Your task to perform on an android device: open device folders in google photos Image 0: 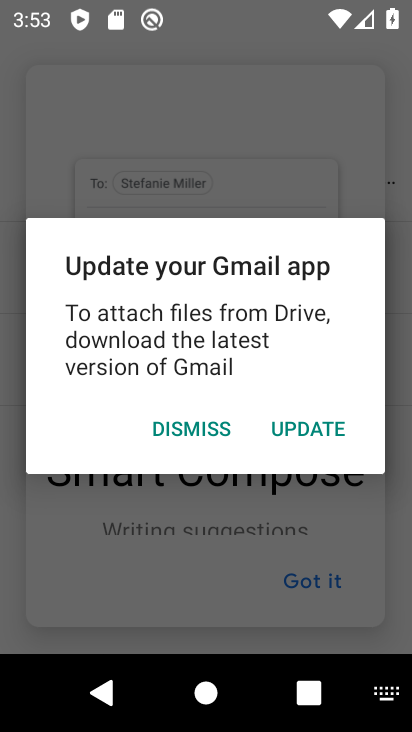
Step 0: press home button
Your task to perform on an android device: open device folders in google photos Image 1: 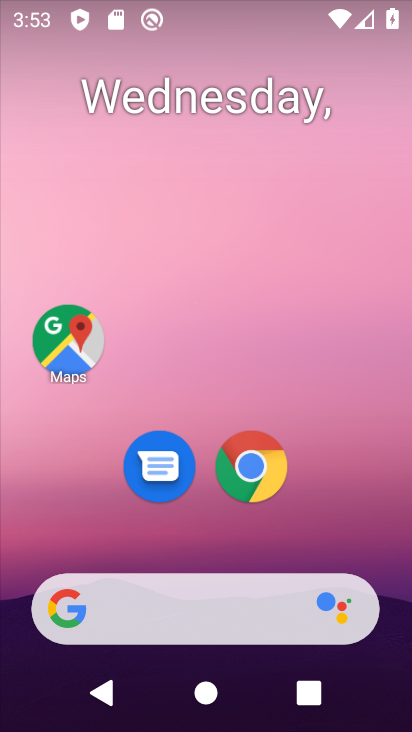
Step 1: drag from (175, 530) to (96, 0)
Your task to perform on an android device: open device folders in google photos Image 2: 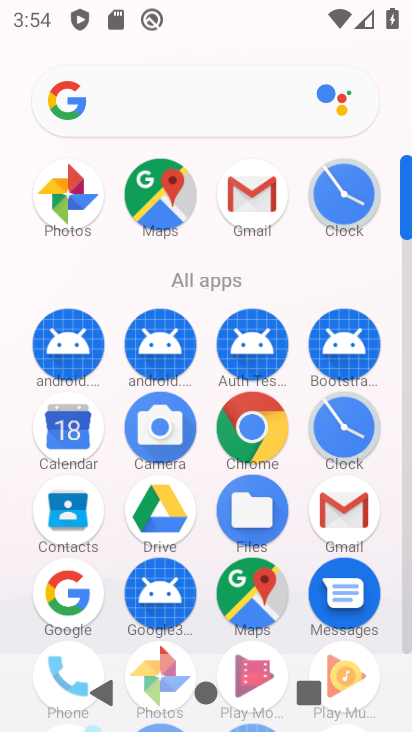
Step 2: click (145, 648)
Your task to perform on an android device: open device folders in google photos Image 3: 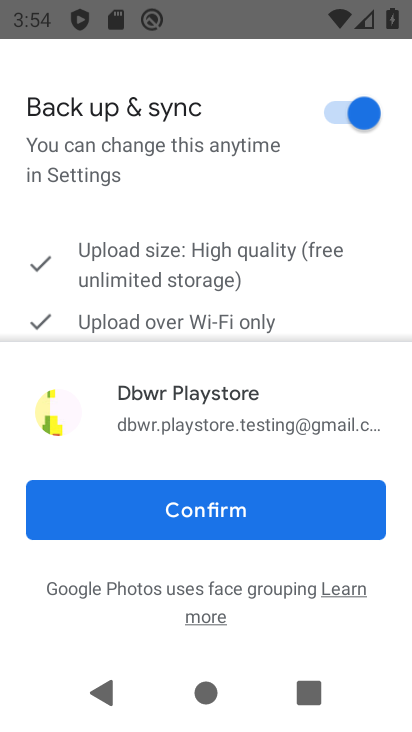
Step 3: click (235, 528)
Your task to perform on an android device: open device folders in google photos Image 4: 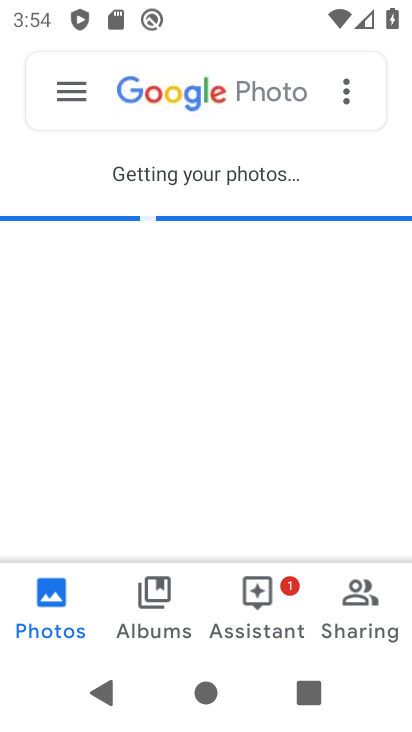
Step 4: click (71, 94)
Your task to perform on an android device: open device folders in google photos Image 5: 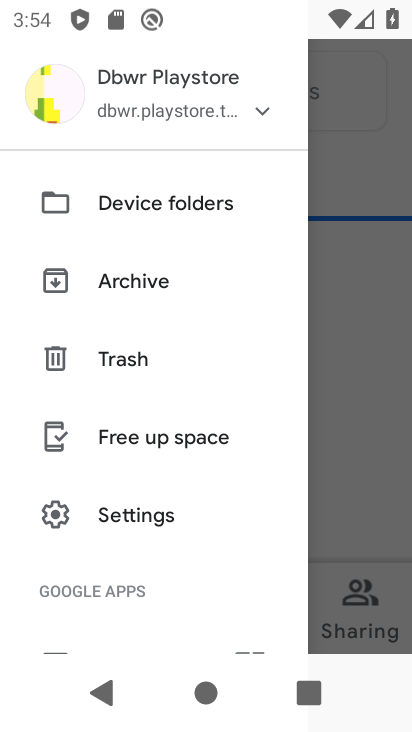
Step 5: click (124, 209)
Your task to perform on an android device: open device folders in google photos Image 6: 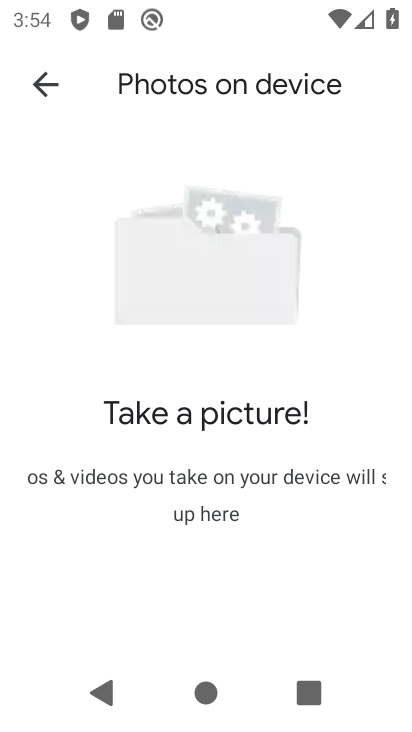
Step 6: task complete